Your task to perform on an android device: Open Wikipedia Image 0: 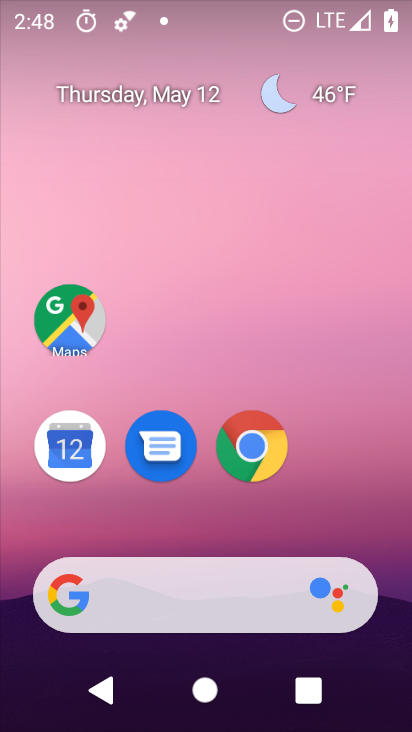
Step 0: click (244, 465)
Your task to perform on an android device: Open Wikipedia Image 1: 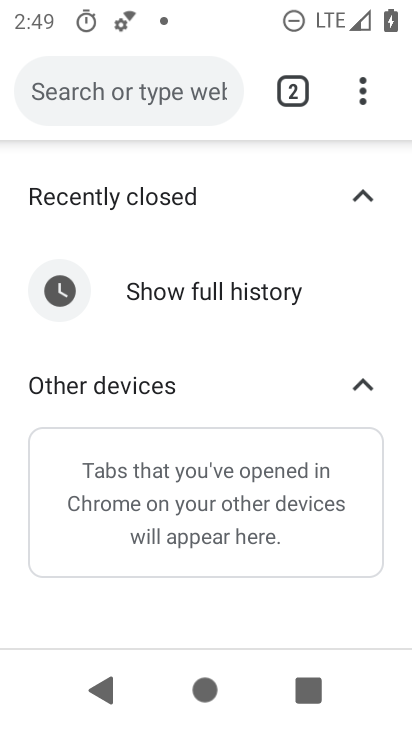
Step 1: click (139, 78)
Your task to perform on an android device: Open Wikipedia Image 2: 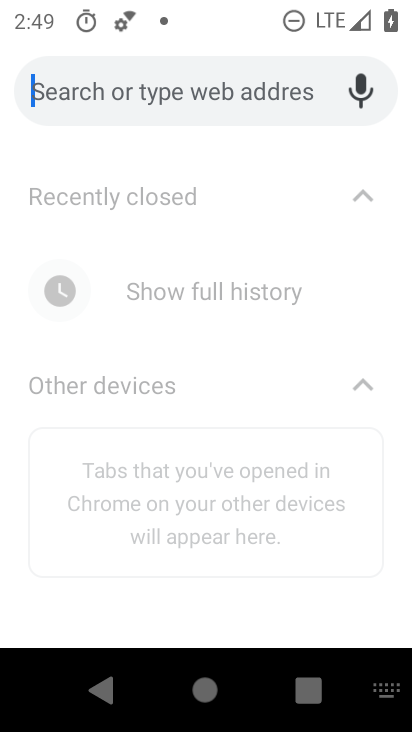
Step 2: type "Wikipedia"
Your task to perform on an android device: Open Wikipedia Image 3: 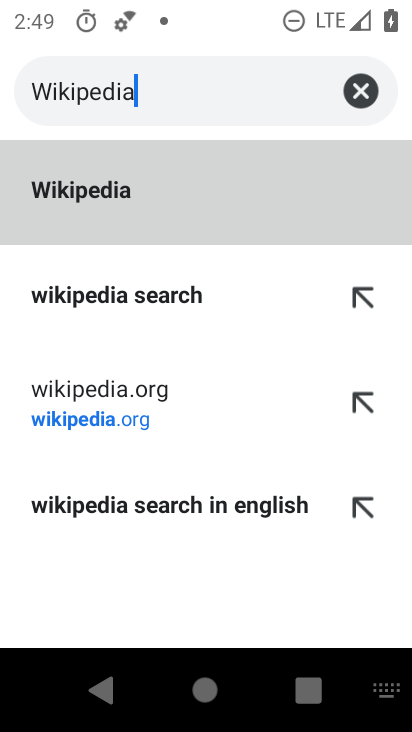
Step 3: click (111, 227)
Your task to perform on an android device: Open Wikipedia Image 4: 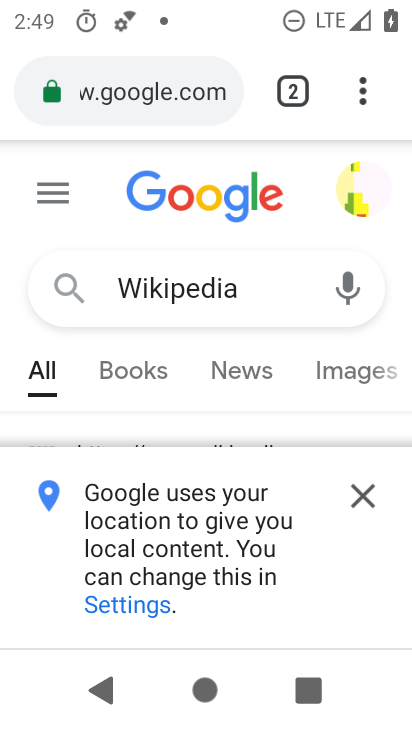
Step 4: click (363, 497)
Your task to perform on an android device: Open Wikipedia Image 5: 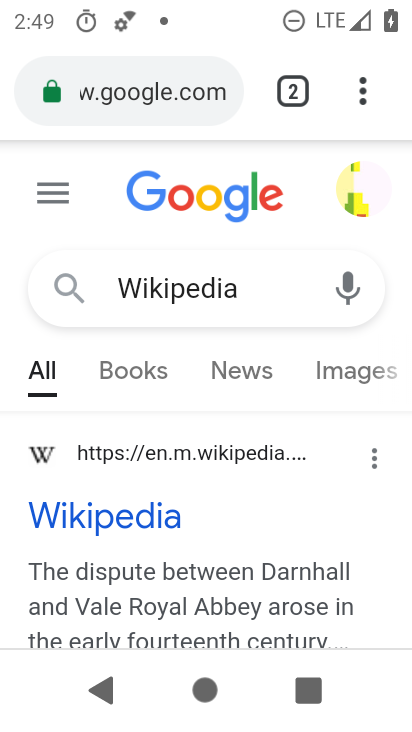
Step 5: click (108, 508)
Your task to perform on an android device: Open Wikipedia Image 6: 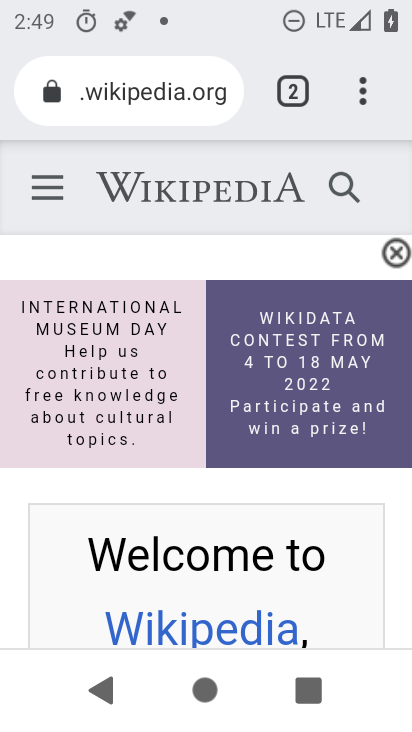
Step 6: task complete